Your task to perform on an android device: Open display settings Image 0: 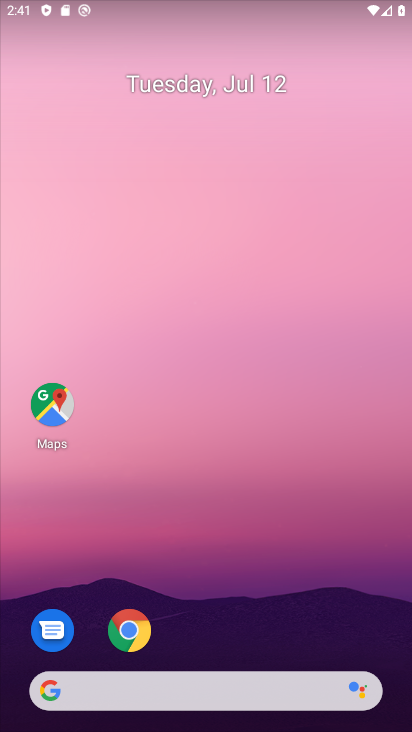
Step 0: click (271, 81)
Your task to perform on an android device: Open display settings Image 1: 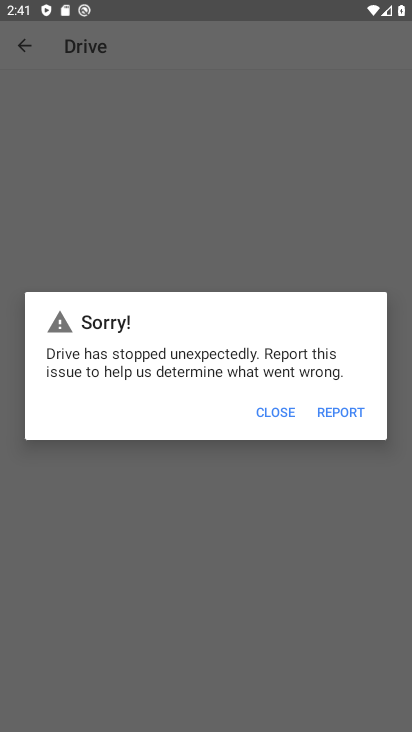
Step 1: press home button
Your task to perform on an android device: Open display settings Image 2: 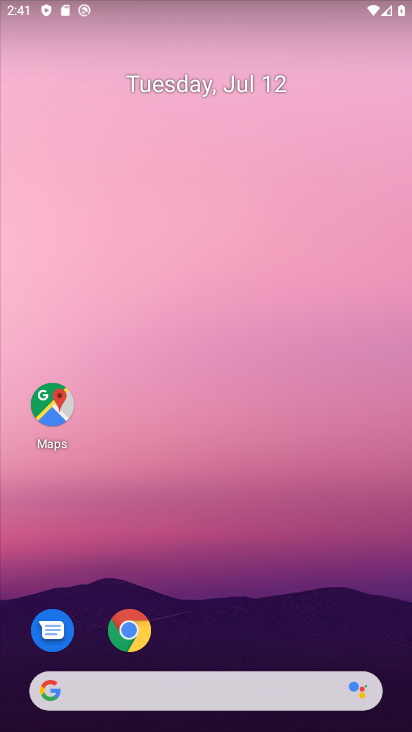
Step 2: drag from (294, 685) to (300, 2)
Your task to perform on an android device: Open display settings Image 3: 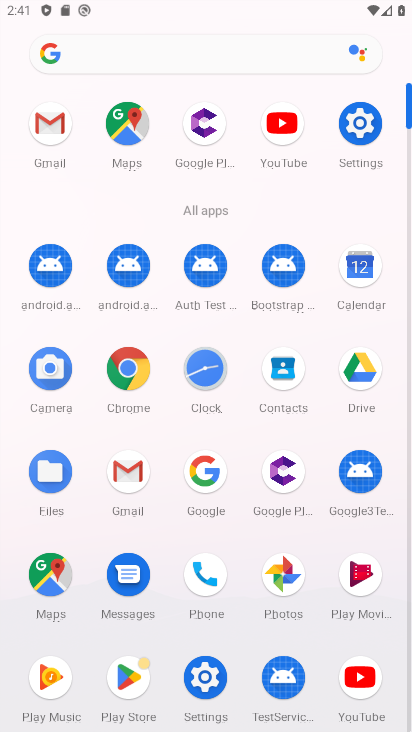
Step 3: click (362, 115)
Your task to perform on an android device: Open display settings Image 4: 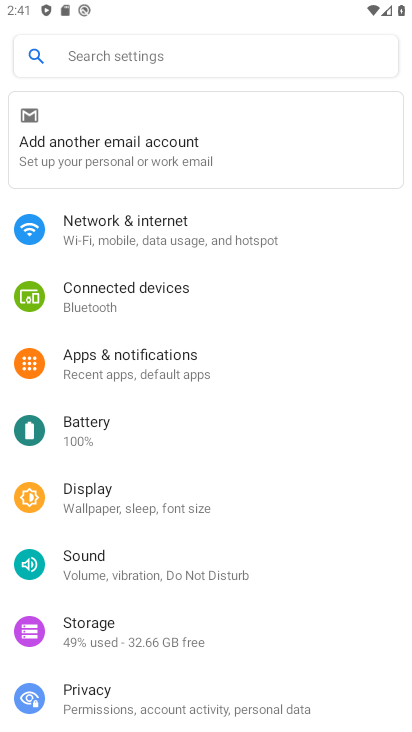
Step 4: click (116, 505)
Your task to perform on an android device: Open display settings Image 5: 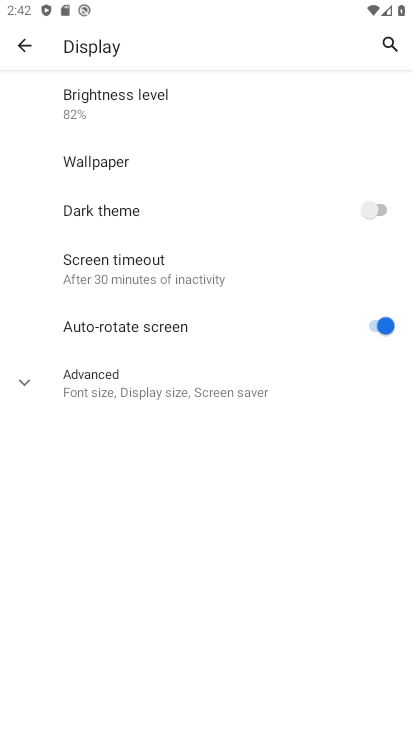
Step 5: task complete